Your task to perform on an android device: check data usage Image 0: 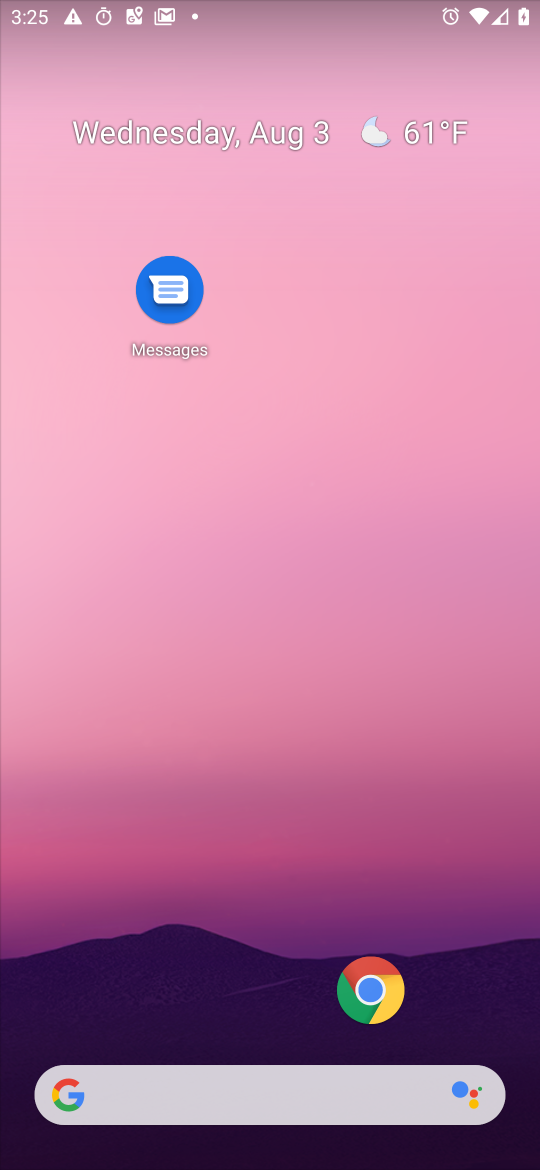
Step 0: drag from (295, 1039) to (366, 304)
Your task to perform on an android device: check data usage Image 1: 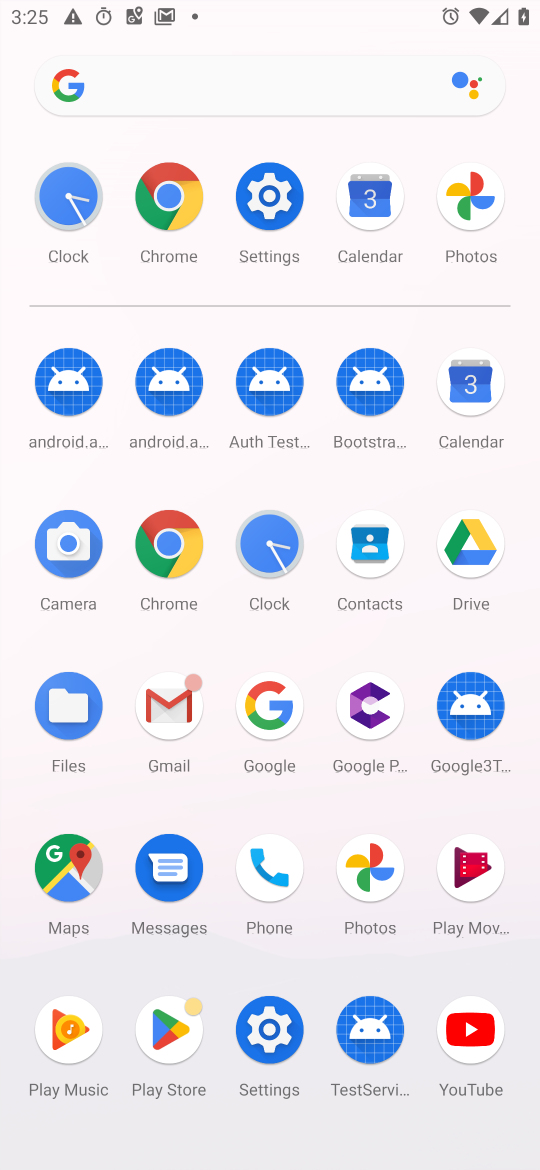
Step 1: click (272, 197)
Your task to perform on an android device: check data usage Image 2: 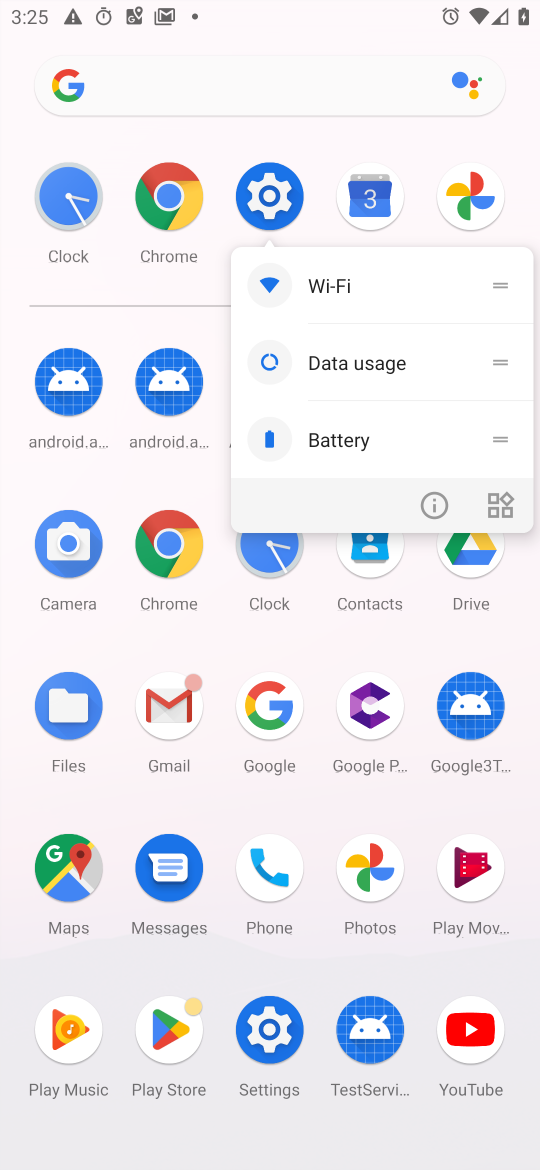
Step 2: click (275, 197)
Your task to perform on an android device: check data usage Image 3: 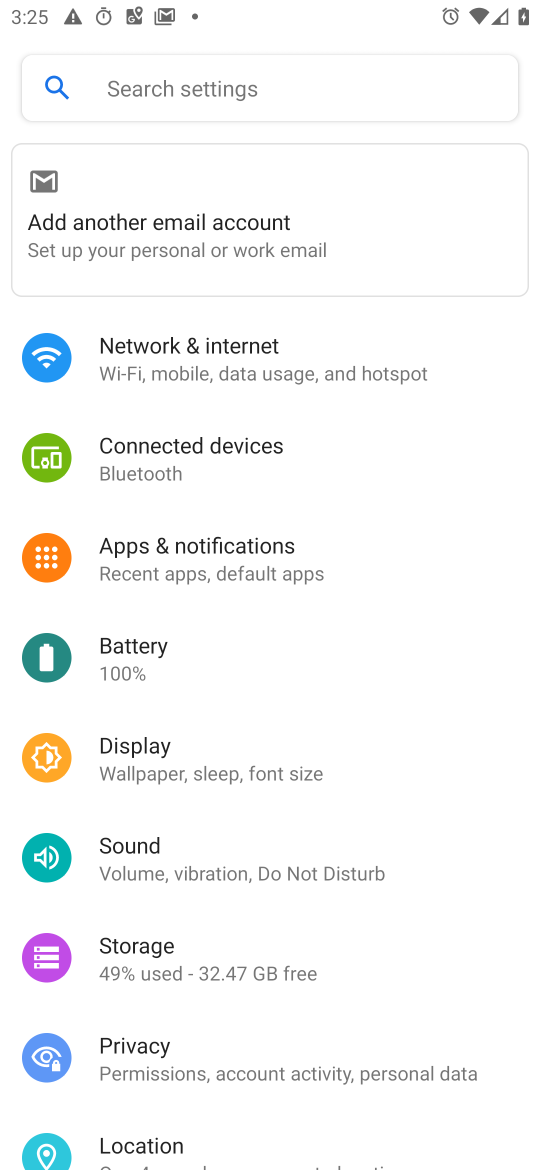
Step 3: click (176, 365)
Your task to perform on an android device: check data usage Image 4: 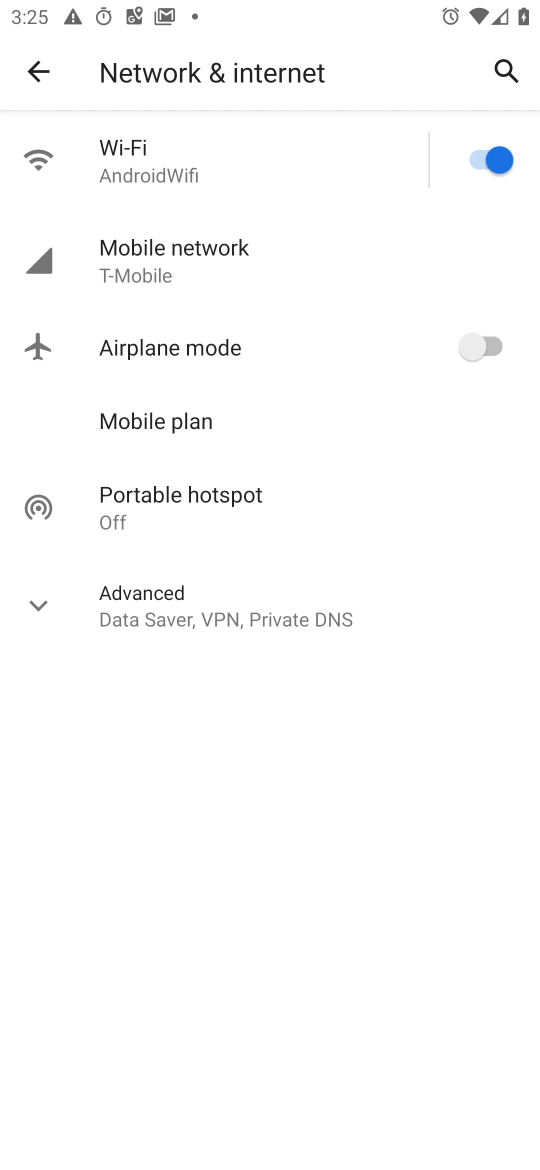
Step 4: click (171, 265)
Your task to perform on an android device: check data usage Image 5: 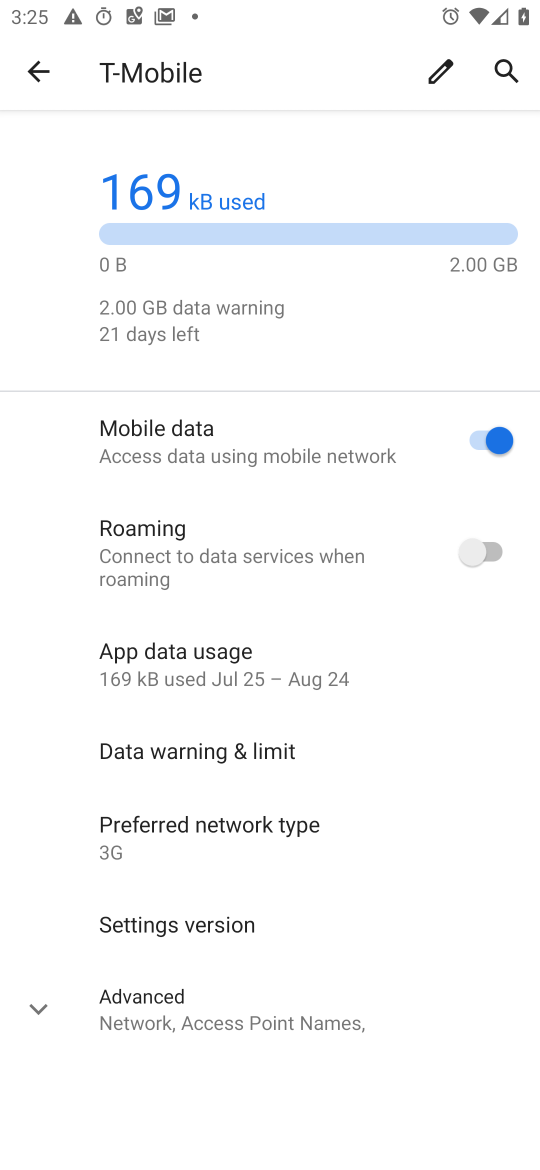
Step 5: task complete